Your task to perform on an android device: install app "Duolingo: language lessons" Image 0: 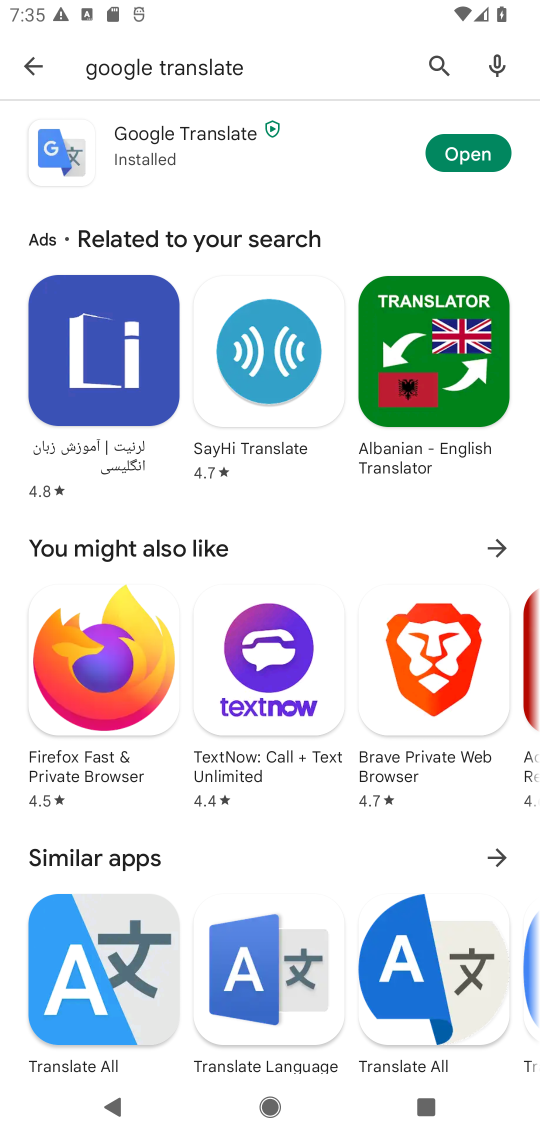
Step 0: click (438, 61)
Your task to perform on an android device: install app "Duolingo: language lessons" Image 1: 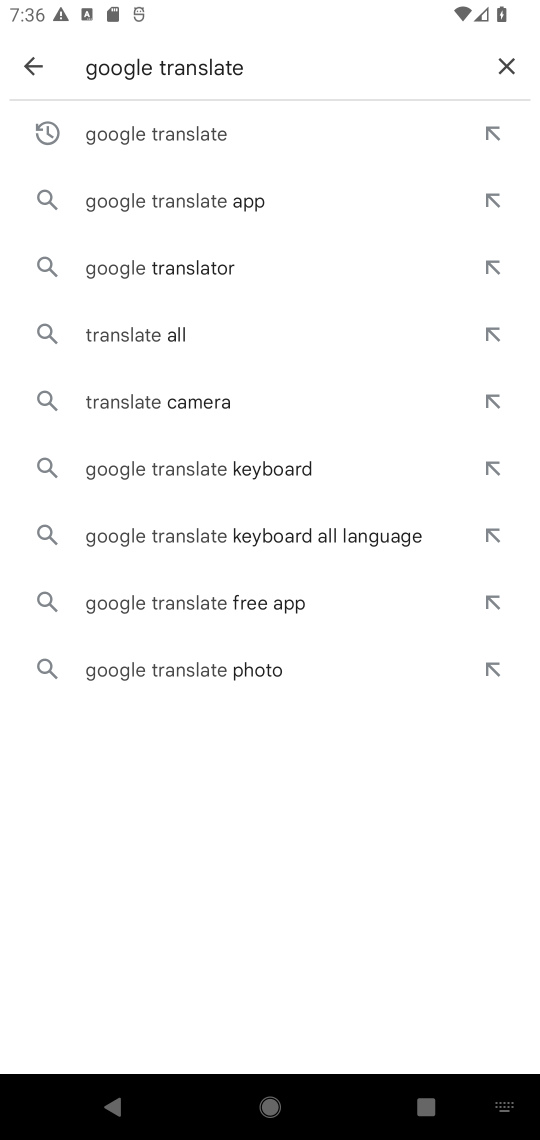
Step 1: click (504, 64)
Your task to perform on an android device: install app "Duolingo: language lessons" Image 2: 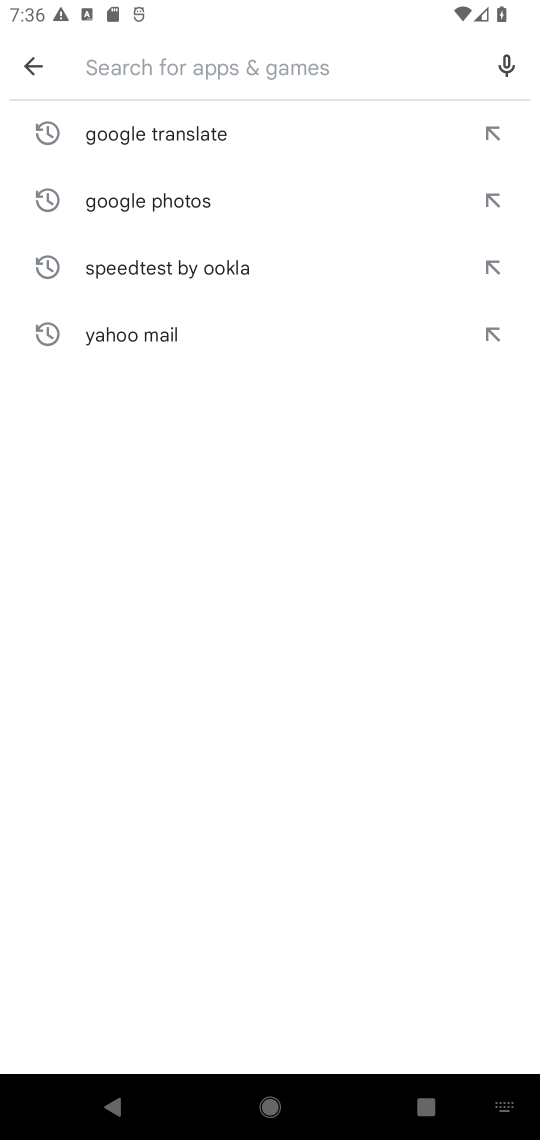
Step 2: type "Duolingo: language lessons"
Your task to perform on an android device: install app "Duolingo: language lessons" Image 3: 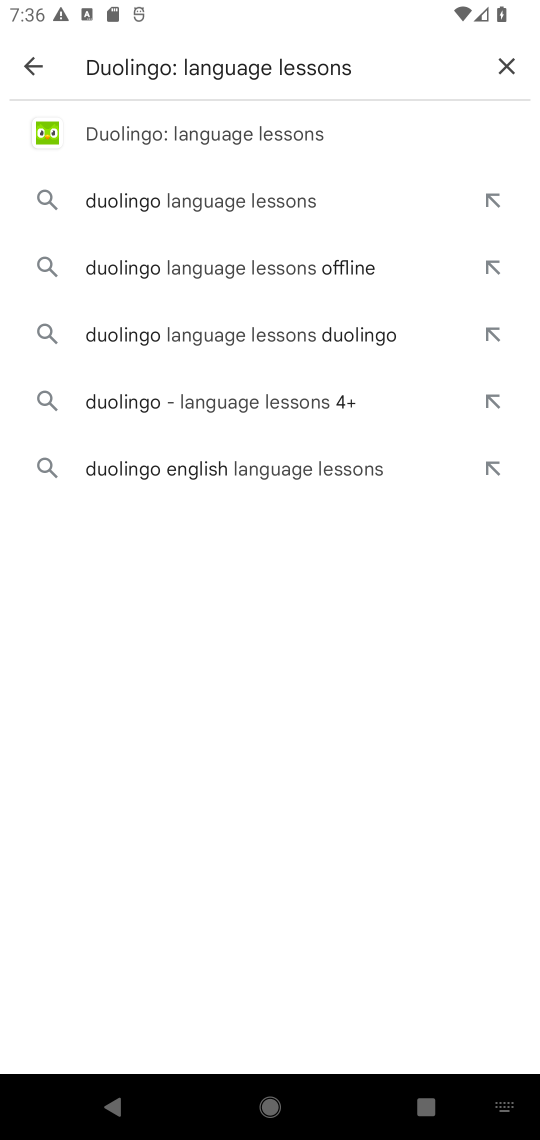
Step 3: click (211, 127)
Your task to perform on an android device: install app "Duolingo: language lessons" Image 4: 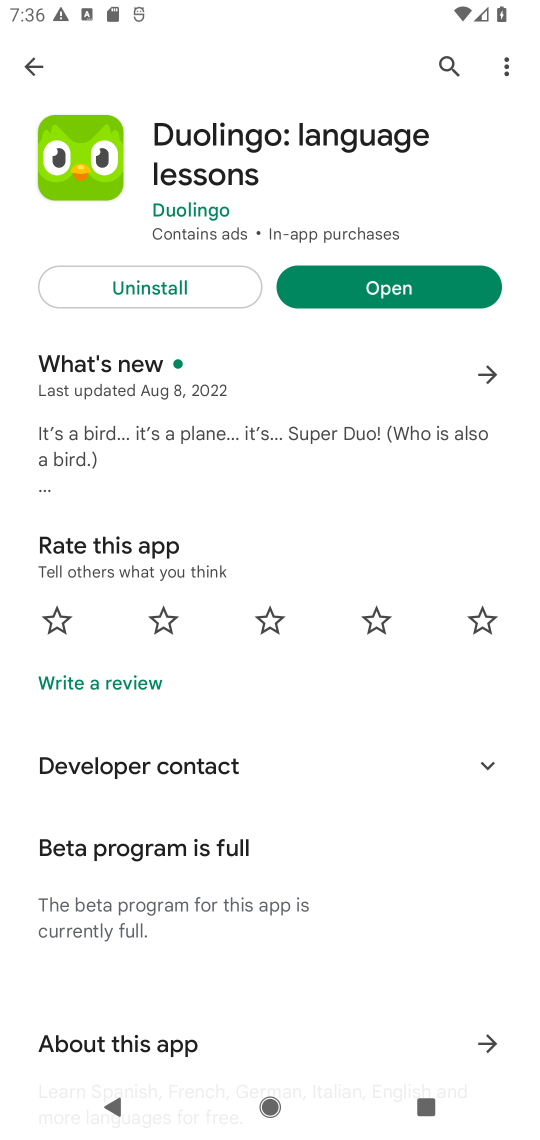
Step 4: task complete